Your task to perform on an android device: Open Yahoo.com Image 0: 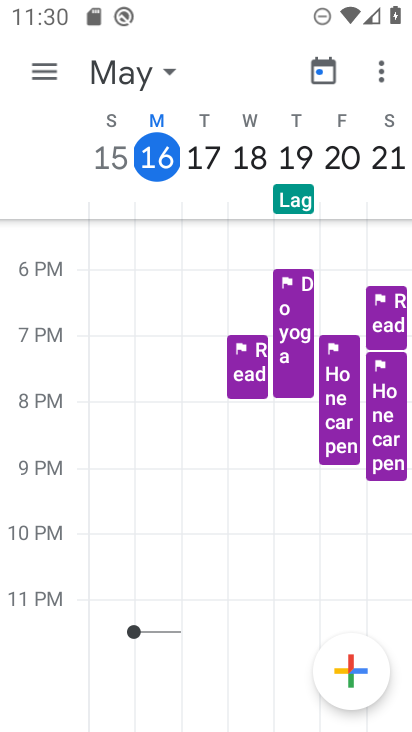
Step 0: press home button
Your task to perform on an android device: Open Yahoo.com Image 1: 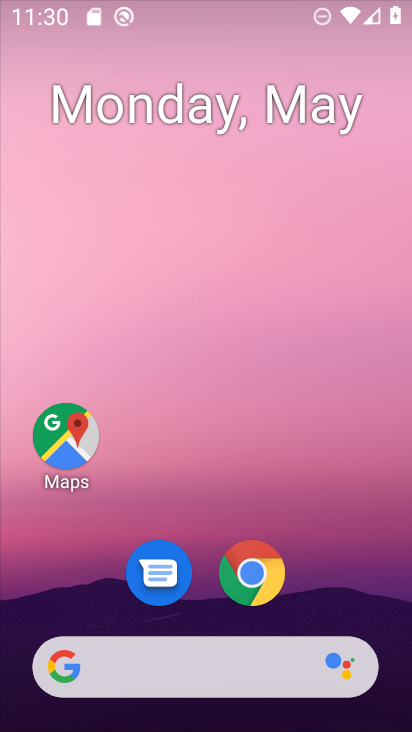
Step 1: click (245, 578)
Your task to perform on an android device: Open Yahoo.com Image 2: 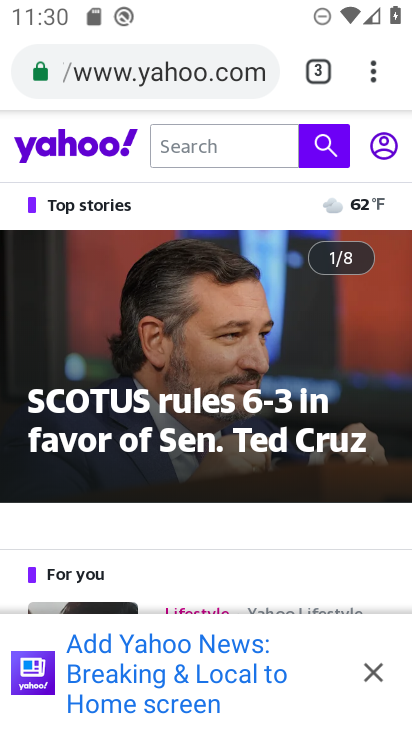
Step 2: task complete